Your task to perform on an android device: delete location history Image 0: 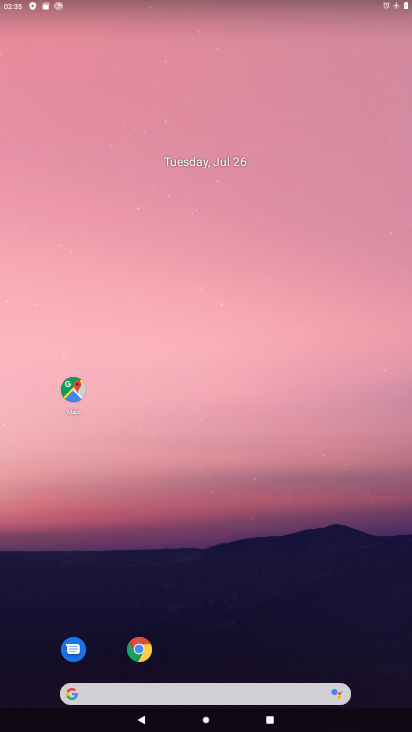
Step 0: click (71, 387)
Your task to perform on an android device: delete location history Image 1: 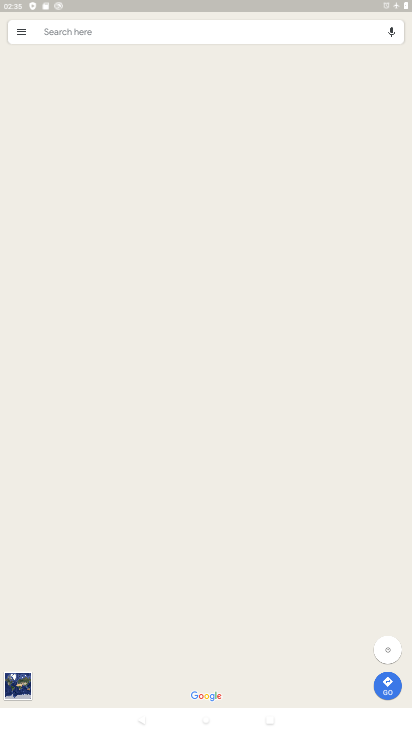
Step 1: click (18, 28)
Your task to perform on an android device: delete location history Image 2: 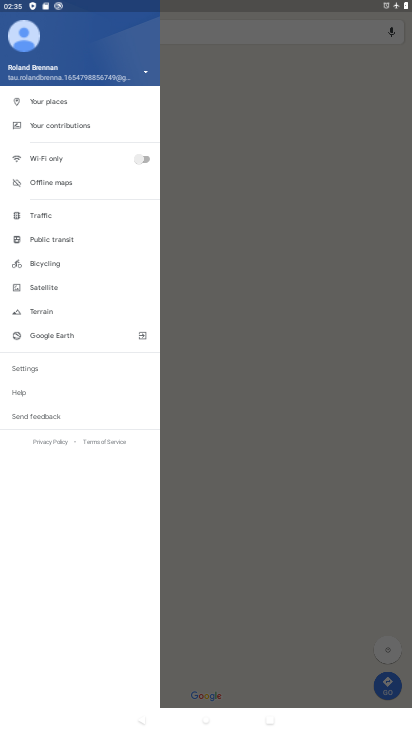
Step 2: click (34, 370)
Your task to perform on an android device: delete location history Image 3: 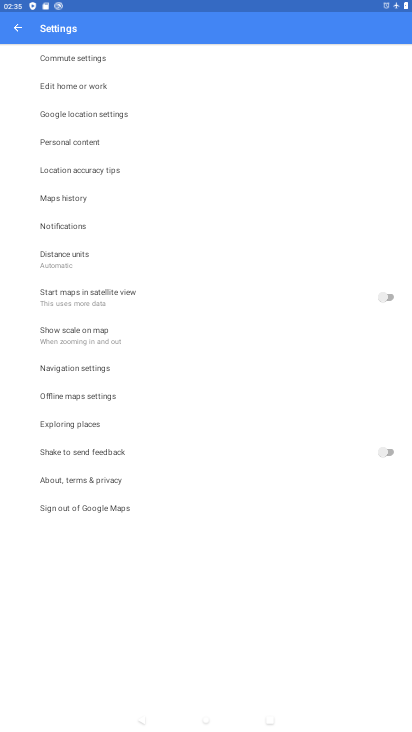
Step 3: click (74, 143)
Your task to perform on an android device: delete location history Image 4: 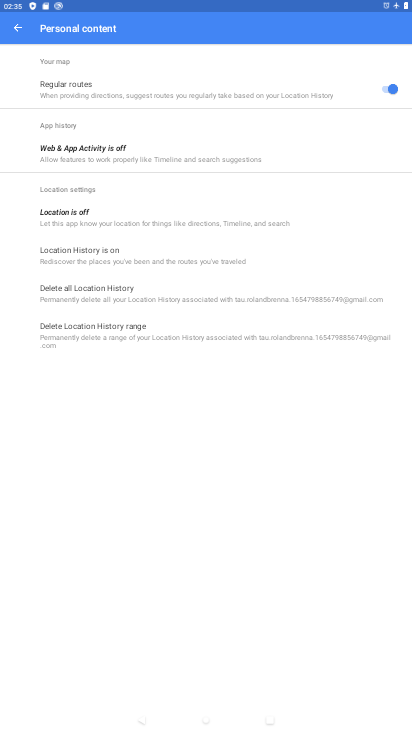
Step 4: click (146, 291)
Your task to perform on an android device: delete location history Image 5: 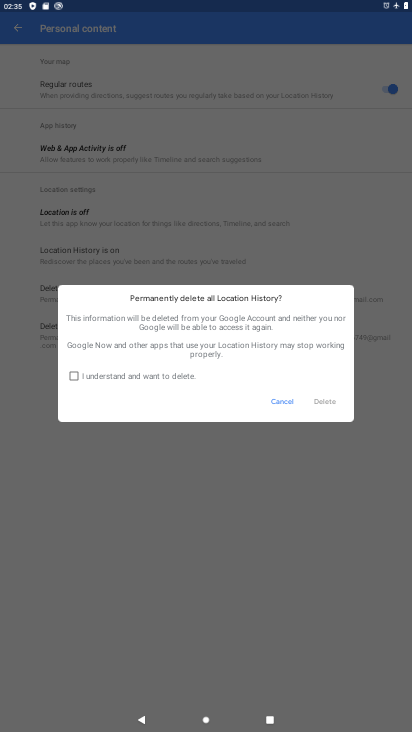
Step 5: click (73, 374)
Your task to perform on an android device: delete location history Image 6: 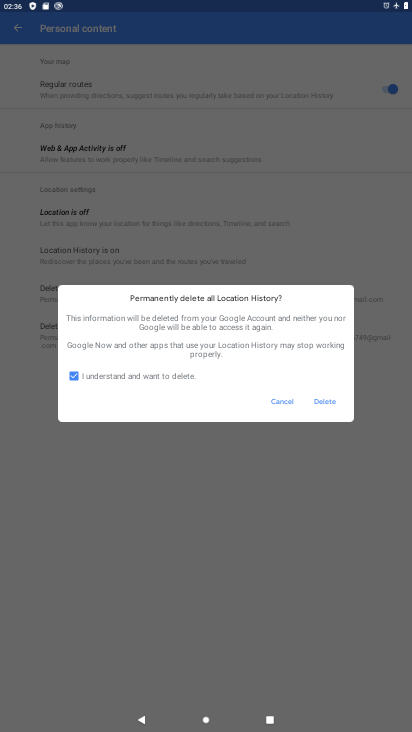
Step 6: click (322, 401)
Your task to perform on an android device: delete location history Image 7: 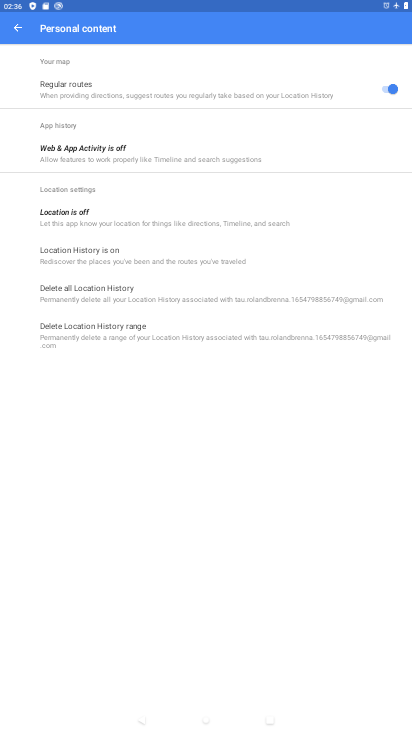
Step 7: task complete